Your task to perform on an android device: turn on improve location accuracy Image 0: 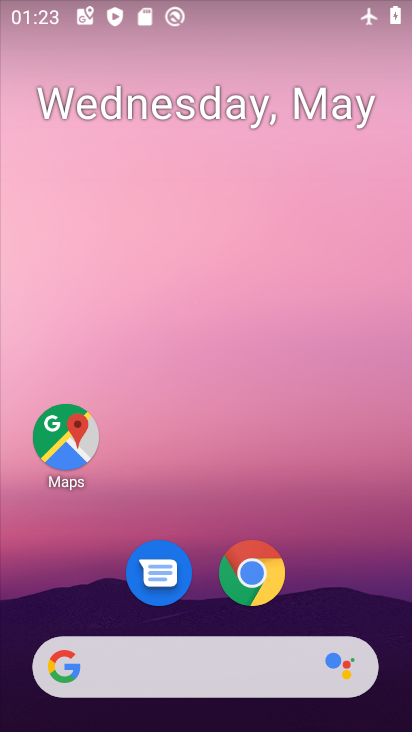
Step 0: drag from (361, 639) to (321, 253)
Your task to perform on an android device: turn on improve location accuracy Image 1: 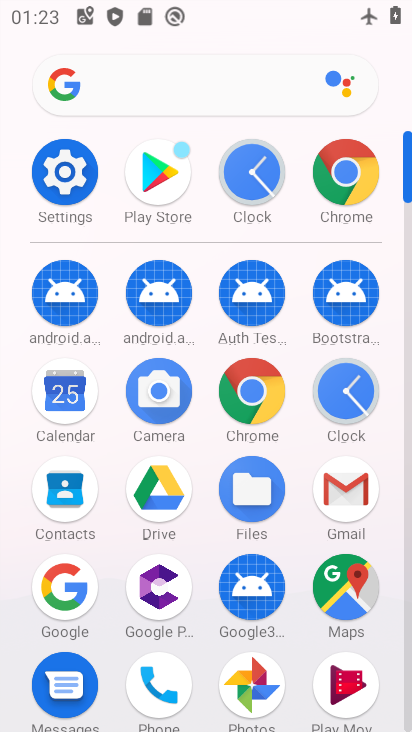
Step 1: click (62, 175)
Your task to perform on an android device: turn on improve location accuracy Image 2: 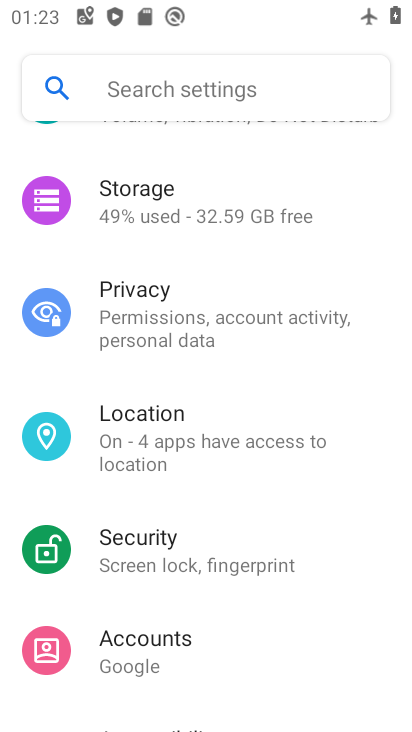
Step 2: click (186, 450)
Your task to perform on an android device: turn on improve location accuracy Image 3: 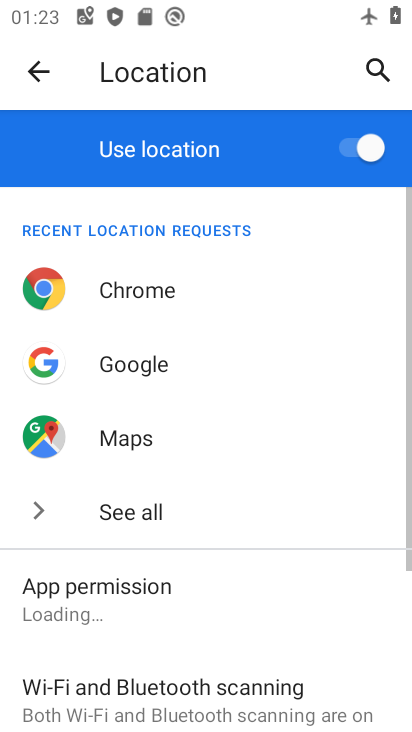
Step 3: drag from (182, 638) to (221, 332)
Your task to perform on an android device: turn on improve location accuracy Image 4: 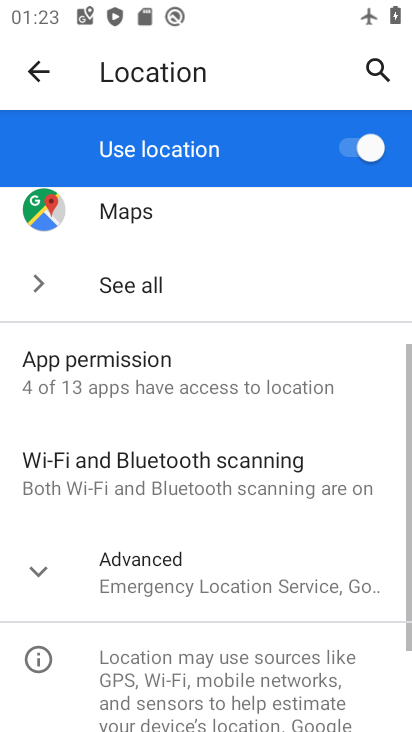
Step 4: click (168, 589)
Your task to perform on an android device: turn on improve location accuracy Image 5: 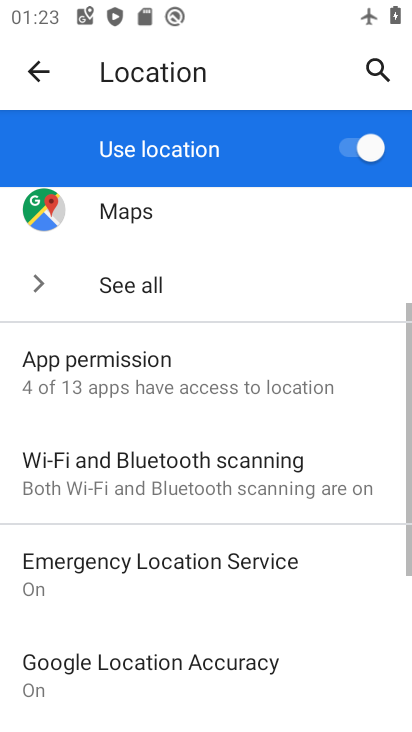
Step 5: drag from (229, 658) to (262, 385)
Your task to perform on an android device: turn on improve location accuracy Image 6: 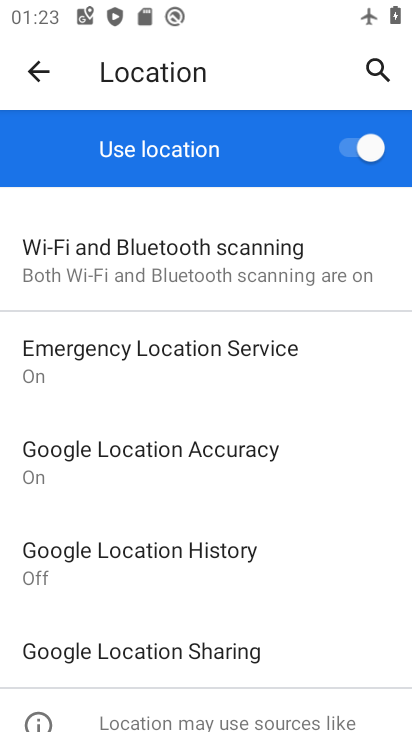
Step 6: click (202, 455)
Your task to perform on an android device: turn on improve location accuracy Image 7: 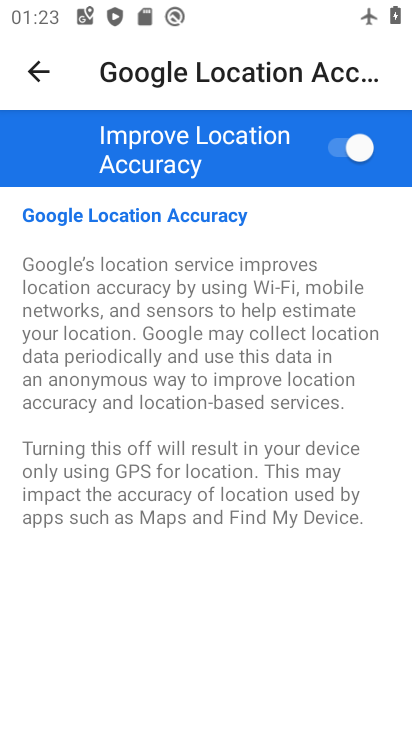
Step 7: task complete